Your task to perform on an android device: Open Google Chrome and click the shortcut for Amazon.com Image 0: 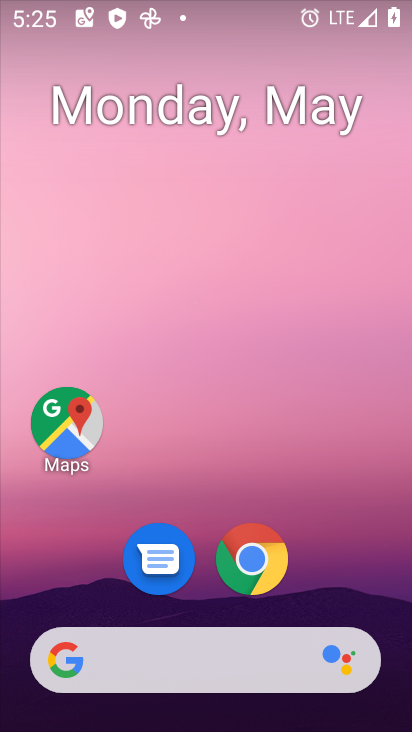
Step 0: drag from (318, 667) to (333, 6)
Your task to perform on an android device: Open Google Chrome and click the shortcut for Amazon.com Image 1: 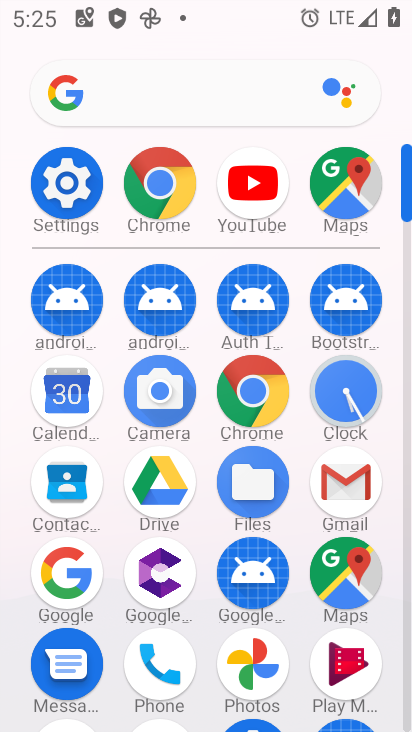
Step 1: click (264, 386)
Your task to perform on an android device: Open Google Chrome and click the shortcut for Amazon.com Image 2: 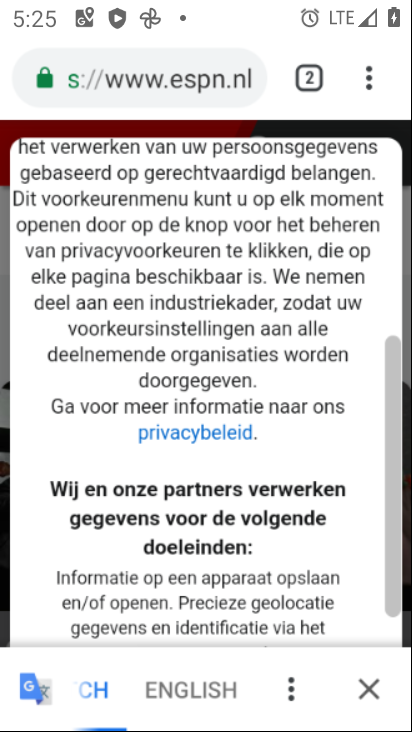
Step 2: drag from (364, 71) to (201, 130)
Your task to perform on an android device: Open Google Chrome and click the shortcut for Amazon.com Image 3: 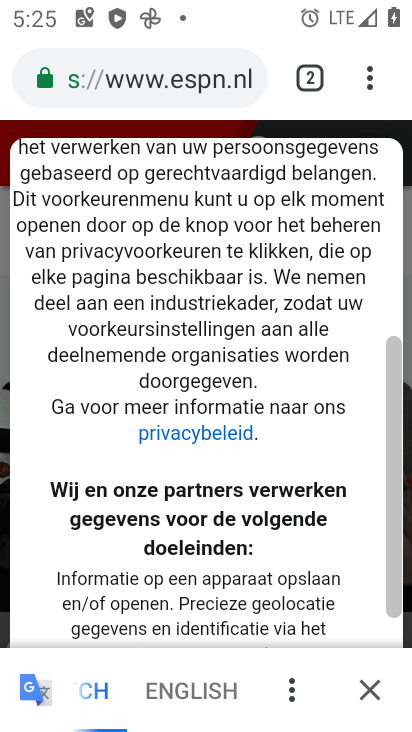
Step 3: drag from (360, 79) to (215, 134)
Your task to perform on an android device: Open Google Chrome and click the shortcut for Amazon.com Image 4: 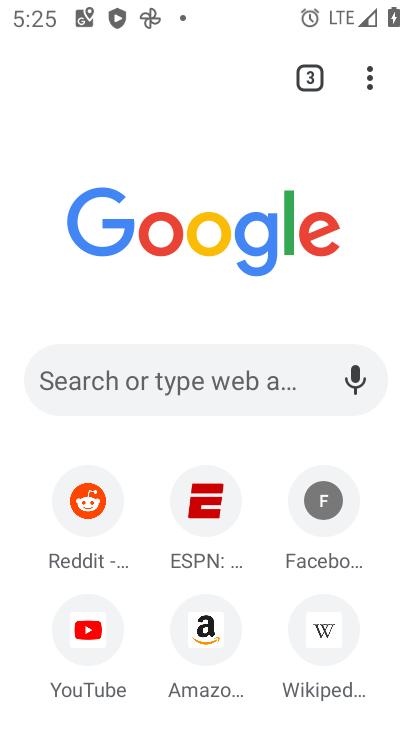
Step 4: click (214, 638)
Your task to perform on an android device: Open Google Chrome and click the shortcut for Amazon.com Image 5: 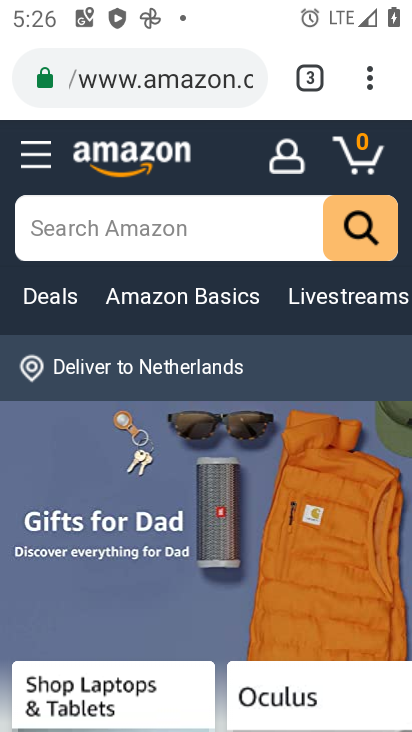
Step 5: drag from (370, 68) to (202, 488)
Your task to perform on an android device: Open Google Chrome and click the shortcut for Amazon.com Image 6: 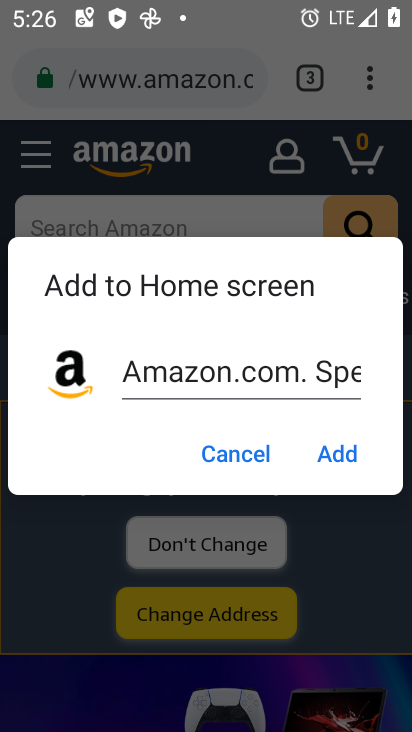
Step 6: click (352, 444)
Your task to perform on an android device: Open Google Chrome and click the shortcut for Amazon.com Image 7: 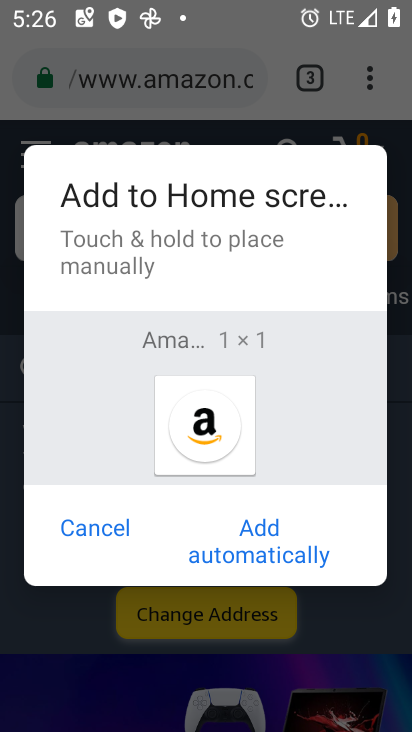
Step 7: click (275, 553)
Your task to perform on an android device: Open Google Chrome and click the shortcut for Amazon.com Image 8: 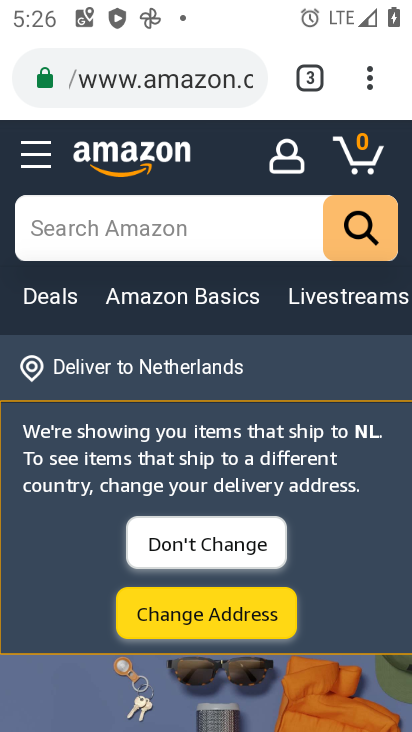
Step 8: task complete